Your task to perform on an android device: Show me productivity apps on the Play Store Image 0: 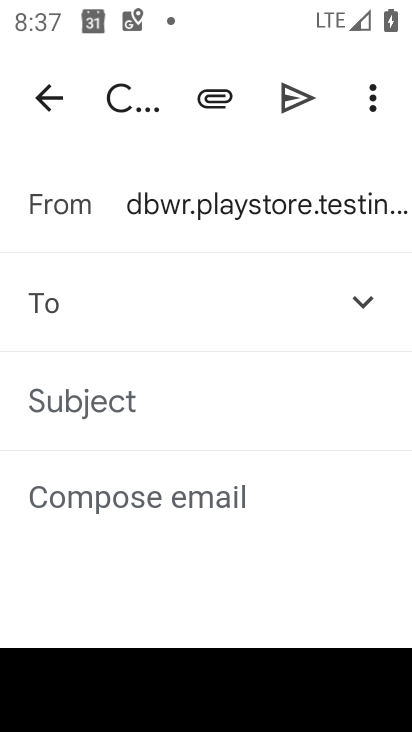
Step 0: press home button
Your task to perform on an android device: Show me productivity apps on the Play Store Image 1: 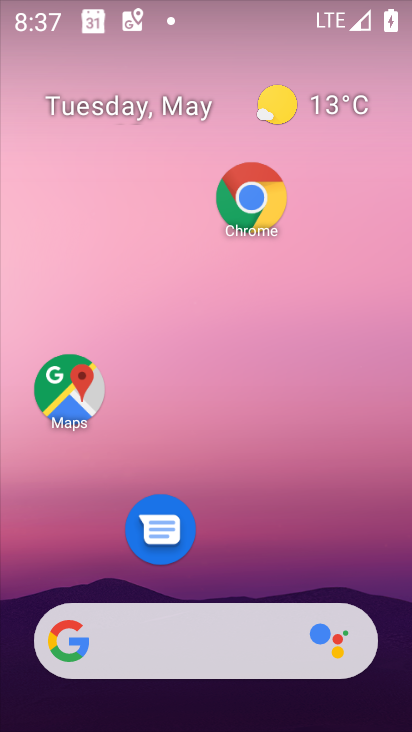
Step 1: drag from (314, 519) to (363, 32)
Your task to perform on an android device: Show me productivity apps on the Play Store Image 2: 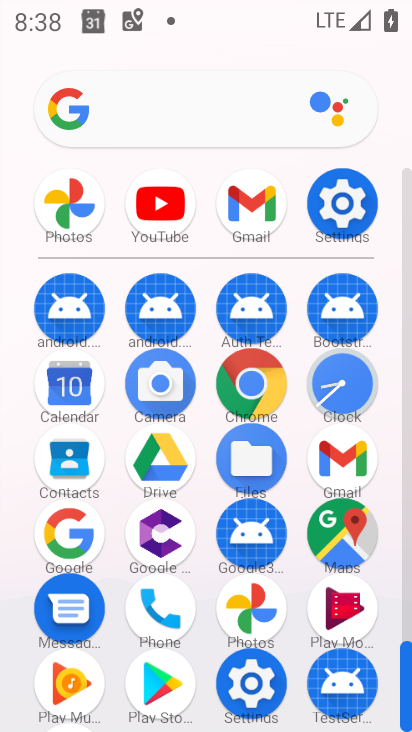
Step 2: click (182, 665)
Your task to perform on an android device: Show me productivity apps on the Play Store Image 3: 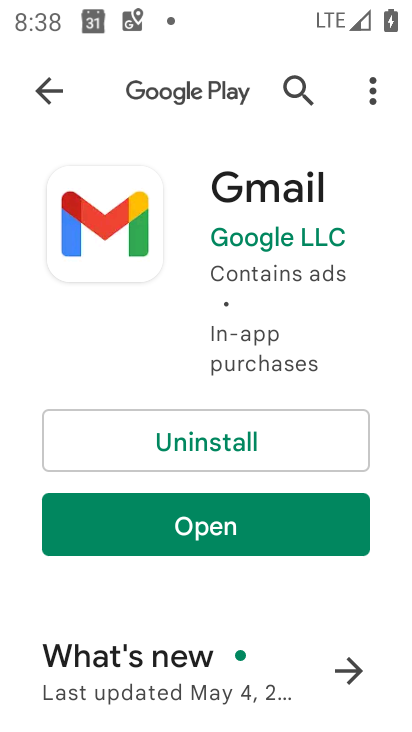
Step 3: press home button
Your task to perform on an android device: Show me productivity apps on the Play Store Image 4: 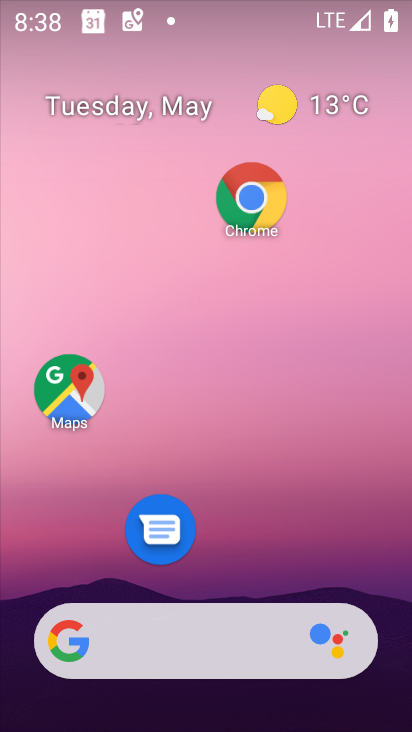
Step 4: drag from (319, 526) to (291, 153)
Your task to perform on an android device: Show me productivity apps on the Play Store Image 5: 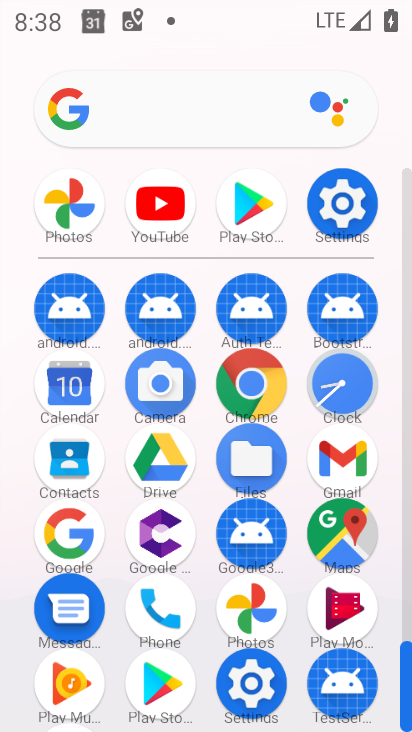
Step 5: click (254, 237)
Your task to perform on an android device: Show me productivity apps on the Play Store Image 6: 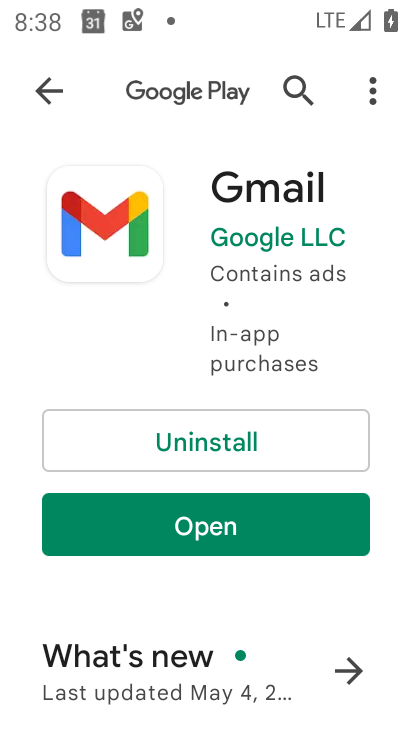
Step 6: click (54, 96)
Your task to perform on an android device: Show me productivity apps on the Play Store Image 7: 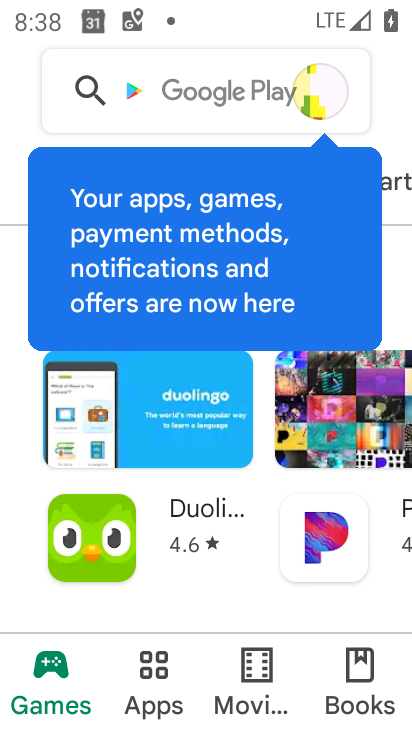
Step 7: click (170, 654)
Your task to perform on an android device: Show me productivity apps on the Play Store Image 8: 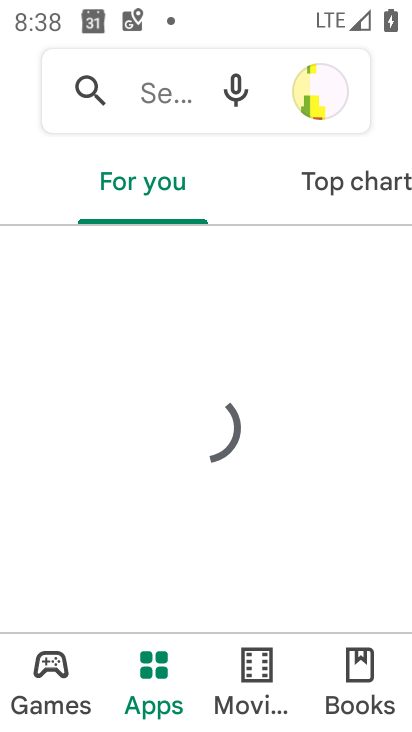
Step 8: click (170, 654)
Your task to perform on an android device: Show me productivity apps on the Play Store Image 9: 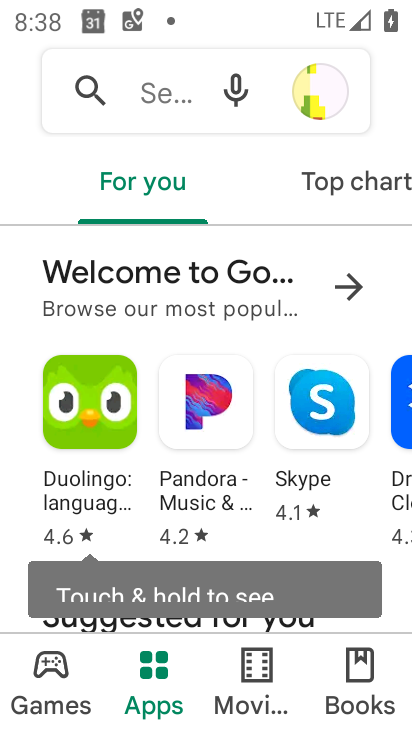
Step 9: click (335, 187)
Your task to perform on an android device: Show me productivity apps on the Play Store Image 10: 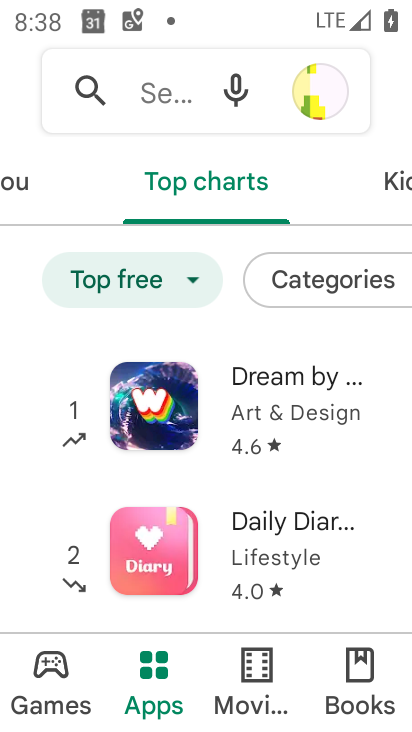
Step 10: click (286, 285)
Your task to perform on an android device: Show me productivity apps on the Play Store Image 11: 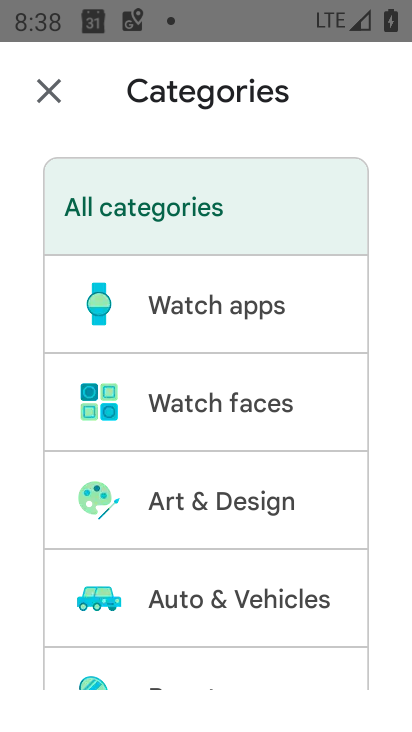
Step 11: drag from (232, 525) to (241, 211)
Your task to perform on an android device: Show me productivity apps on the Play Store Image 12: 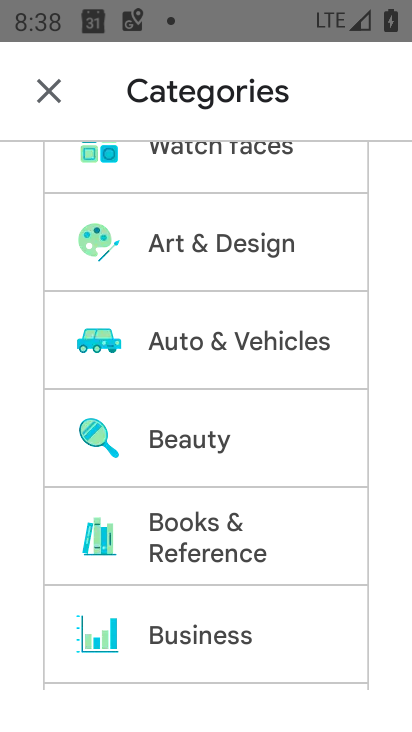
Step 12: drag from (202, 572) to (251, 369)
Your task to perform on an android device: Show me productivity apps on the Play Store Image 13: 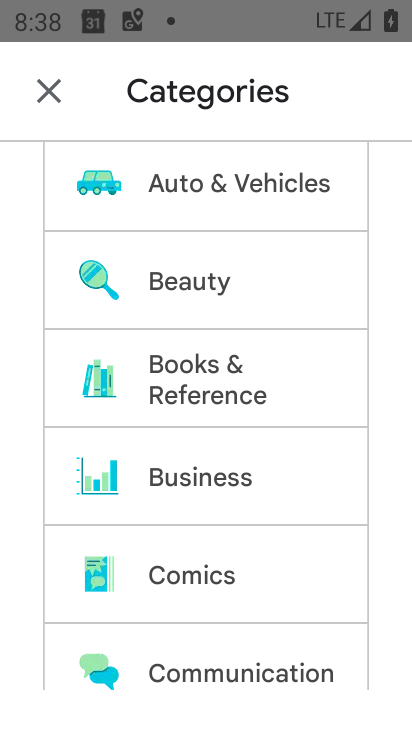
Step 13: drag from (232, 636) to (282, 338)
Your task to perform on an android device: Show me productivity apps on the Play Store Image 14: 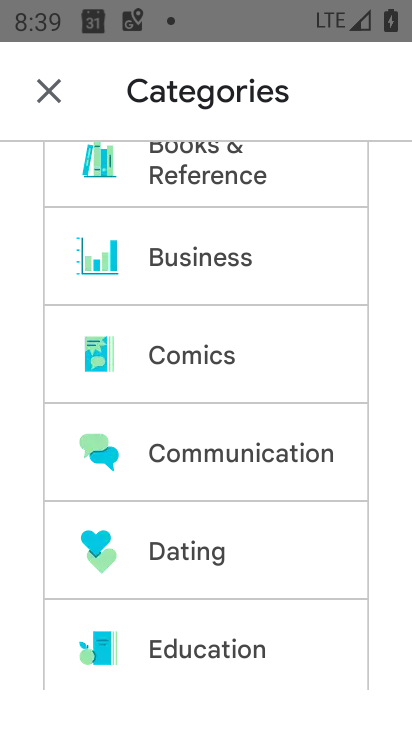
Step 14: drag from (241, 611) to (280, 177)
Your task to perform on an android device: Show me productivity apps on the Play Store Image 15: 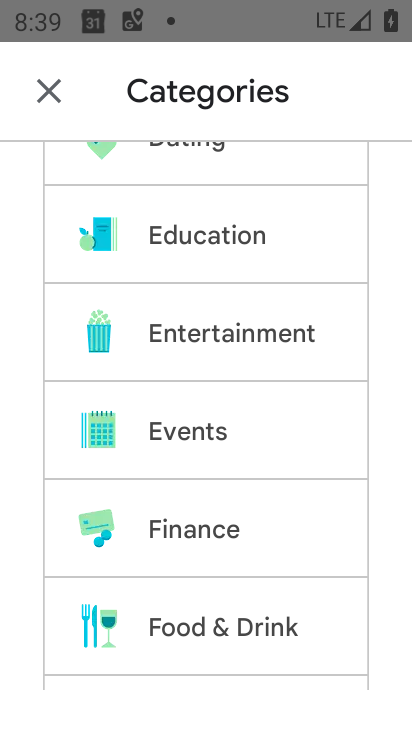
Step 15: drag from (187, 659) to (201, 320)
Your task to perform on an android device: Show me productivity apps on the Play Store Image 16: 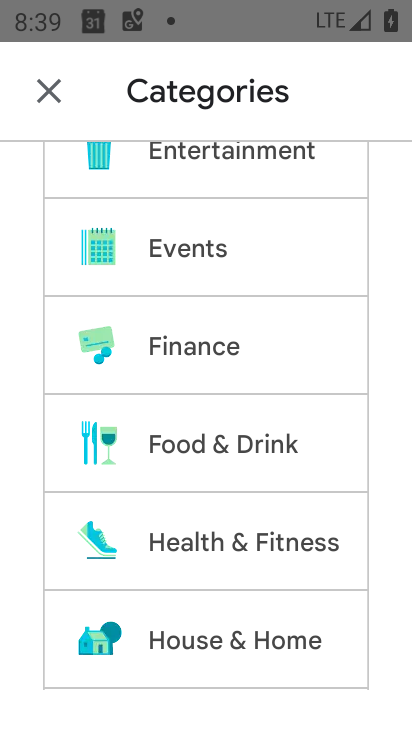
Step 16: drag from (192, 448) to (192, 205)
Your task to perform on an android device: Show me productivity apps on the Play Store Image 17: 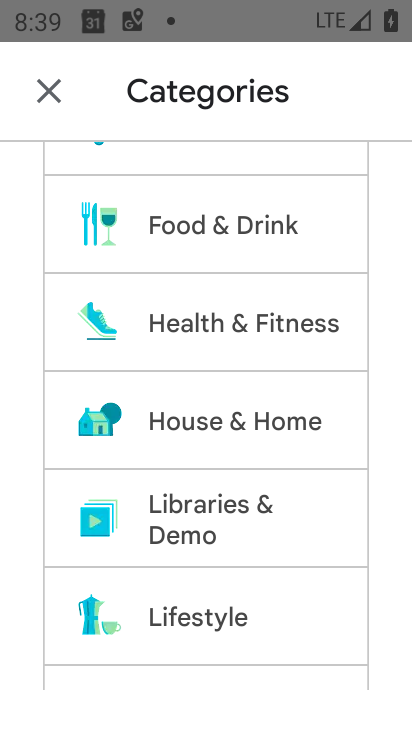
Step 17: drag from (184, 542) to (232, 296)
Your task to perform on an android device: Show me productivity apps on the Play Store Image 18: 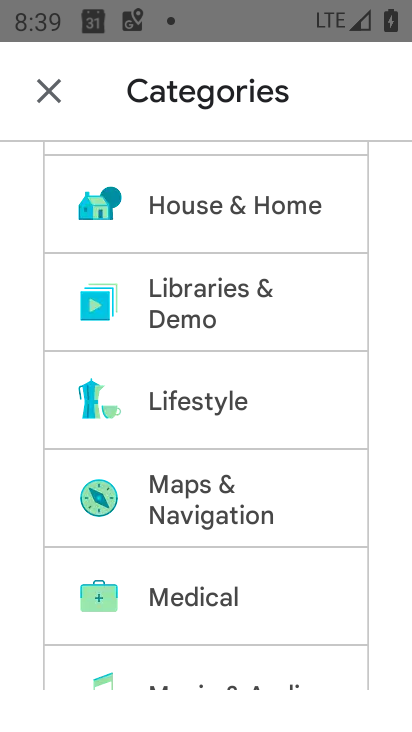
Step 18: drag from (246, 635) to (248, 332)
Your task to perform on an android device: Show me productivity apps on the Play Store Image 19: 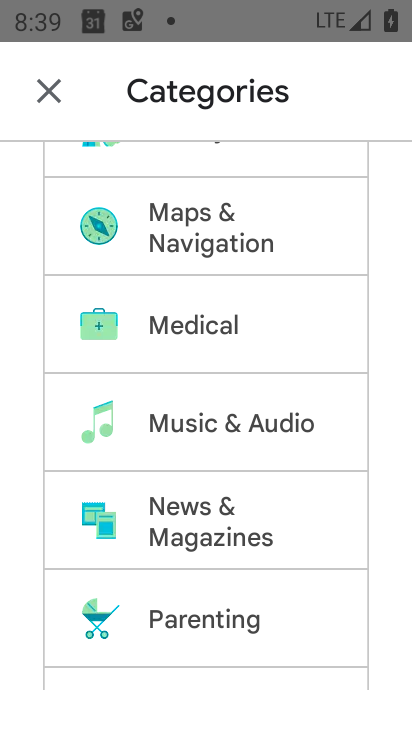
Step 19: drag from (223, 597) to (260, 282)
Your task to perform on an android device: Show me productivity apps on the Play Store Image 20: 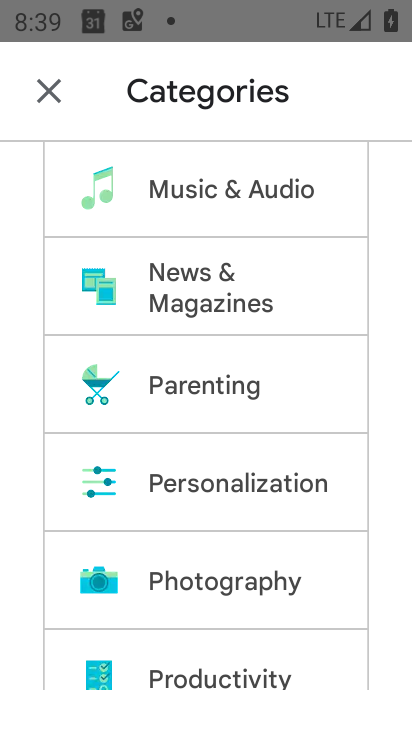
Step 20: drag from (194, 638) to (218, 356)
Your task to perform on an android device: Show me productivity apps on the Play Store Image 21: 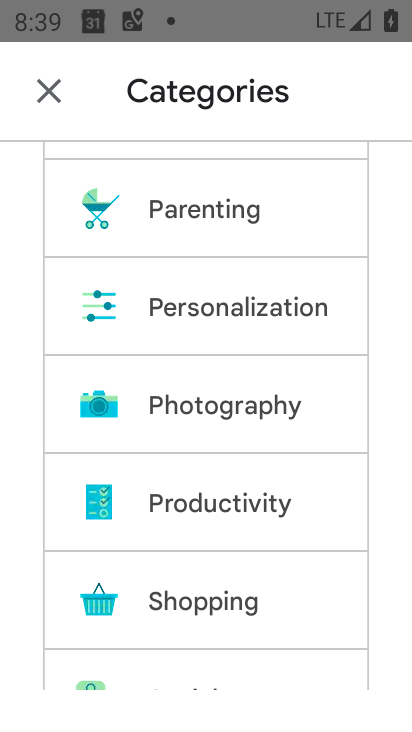
Step 21: click (254, 538)
Your task to perform on an android device: Show me productivity apps on the Play Store Image 22: 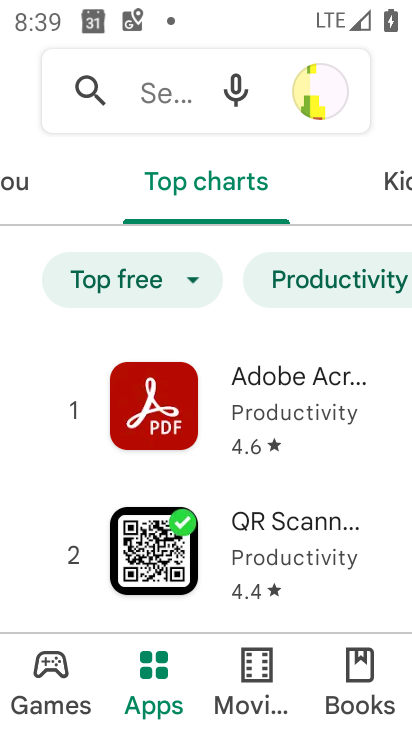
Step 22: task complete